Your task to perform on an android device: delete location history Image 0: 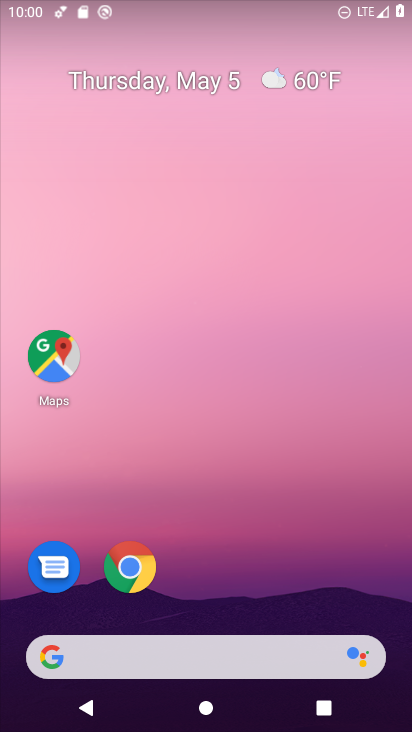
Step 0: drag from (218, 729) to (203, 116)
Your task to perform on an android device: delete location history Image 1: 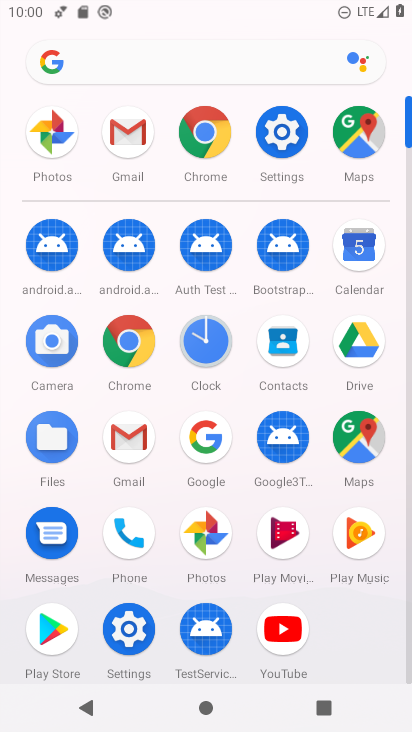
Step 1: click (352, 436)
Your task to perform on an android device: delete location history Image 2: 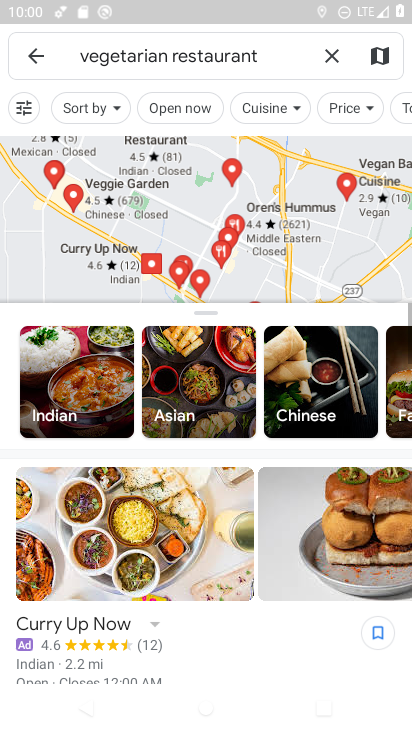
Step 2: click (33, 52)
Your task to perform on an android device: delete location history Image 3: 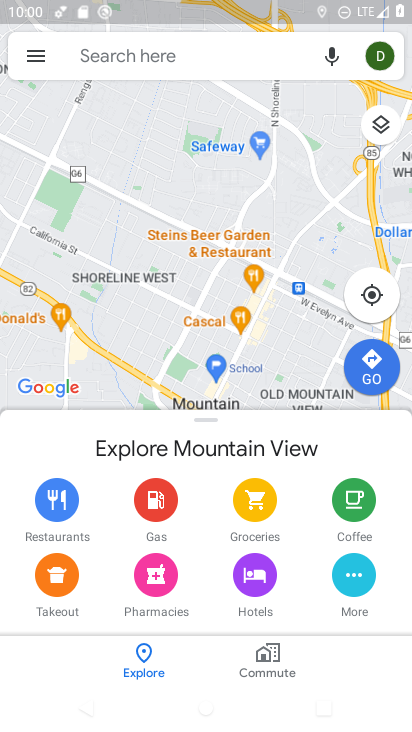
Step 3: click (33, 53)
Your task to perform on an android device: delete location history Image 4: 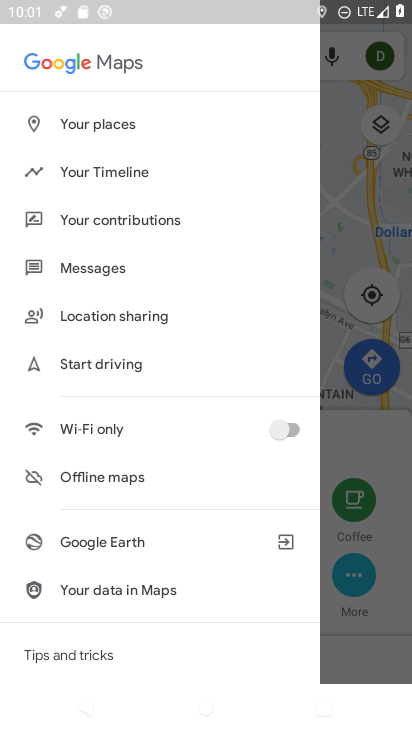
Step 4: click (116, 172)
Your task to perform on an android device: delete location history Image 5: 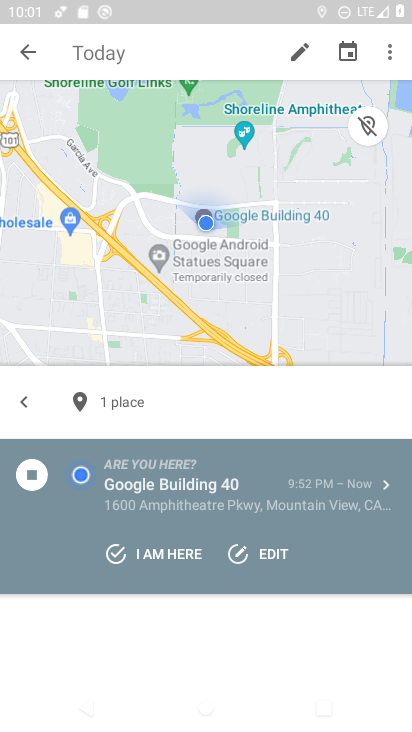
Step 5: click (391, 50)
Your task to perform on an android device: delete location history Image 6: 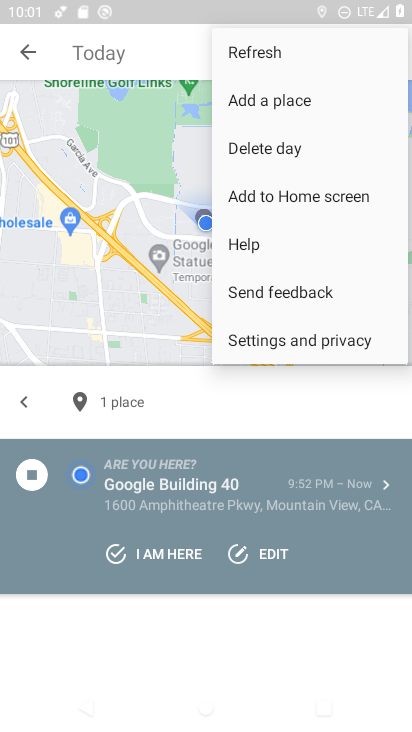
Step 6: click (276, 340)
Your task to perform on an android device: delete location history Image 7: 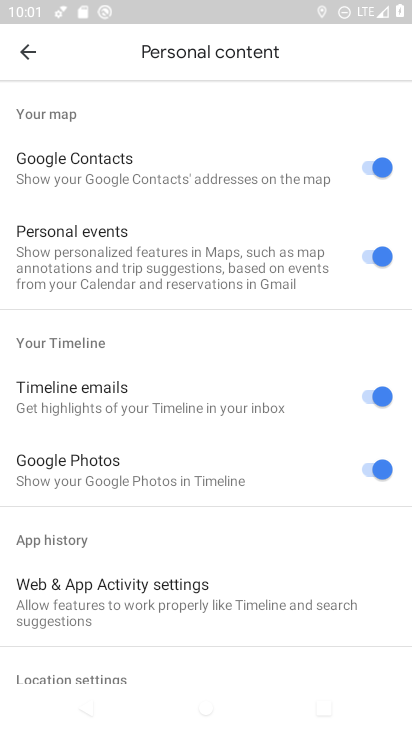
Step 7: drag from (154, 654) to (156, 297)
Your task to perform on an android device: delete location history Image 8: 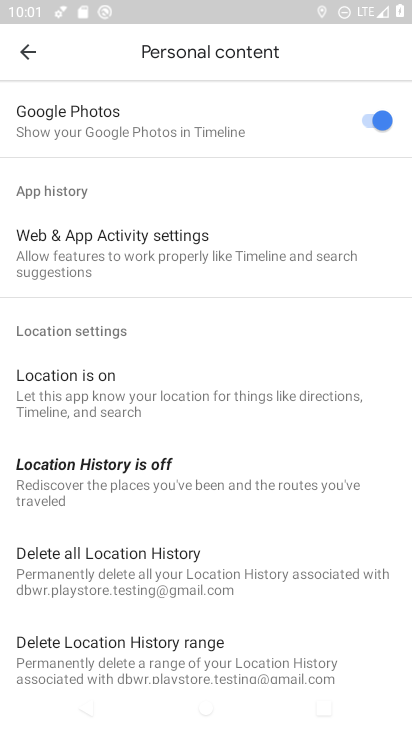
Step 8: click (143, 568)
Your task to perform on an android device: delete location history Image 9: 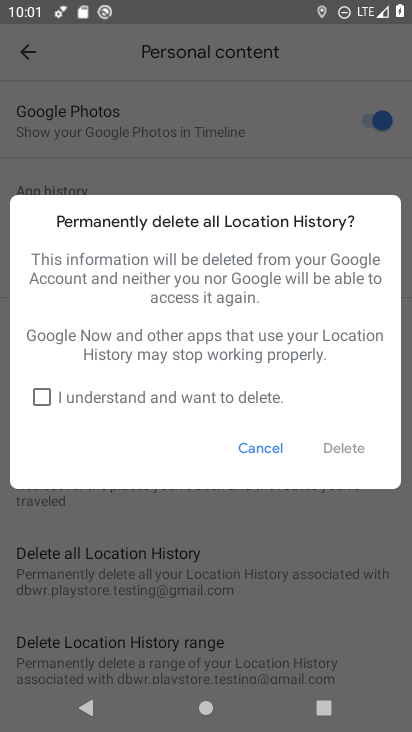
Step 9: click (39, 401)
Your task to perform on an android device: delete location history Image 10: 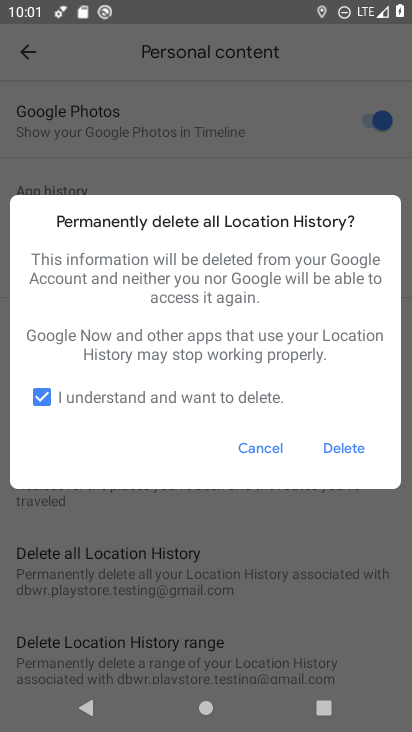
Step 10: click (349, 445)
Your task to perform on an android device: delete location history Image 11: 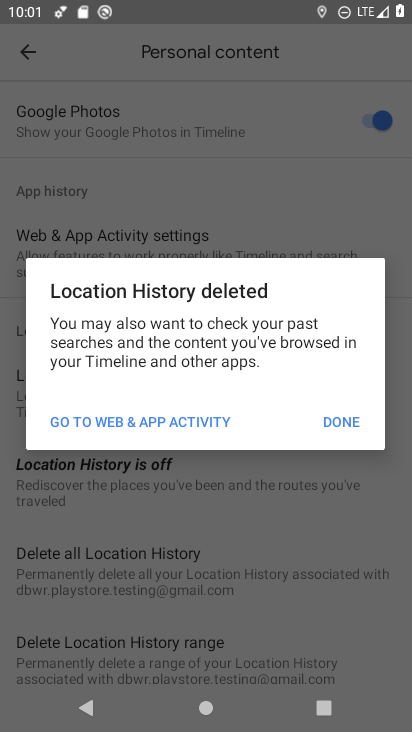
Step 11: click (340, 418)
Your task to perform on an android device: delete location history Image 12: 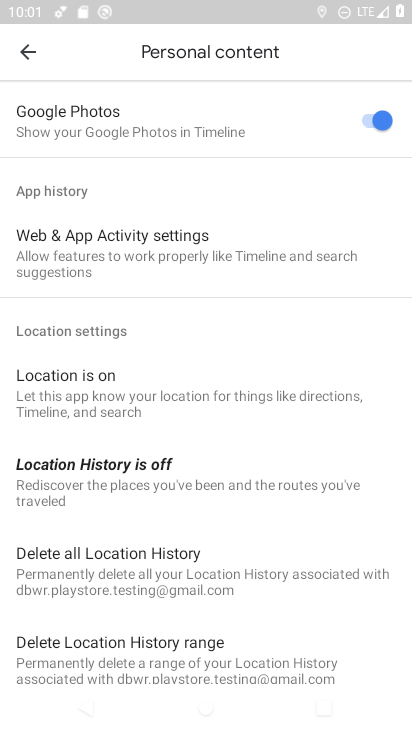
Step 12: task complete